Your task to perform on an android device: turn notification dots off Image 0: 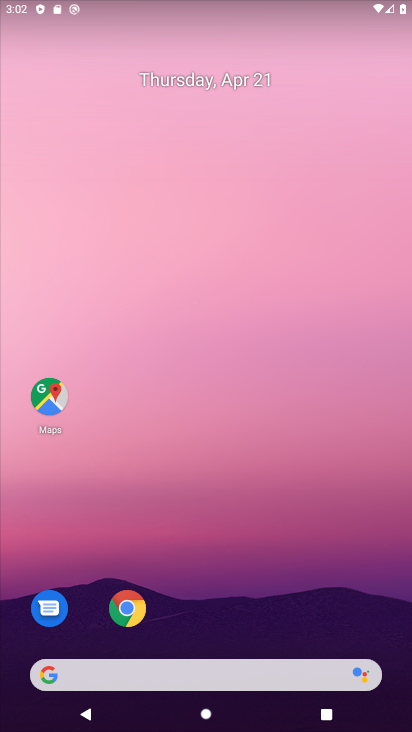
Step 0: drag from (163, 538) to (158, 231)
Your task to perform on an android device: turn notification dots off Image 1: 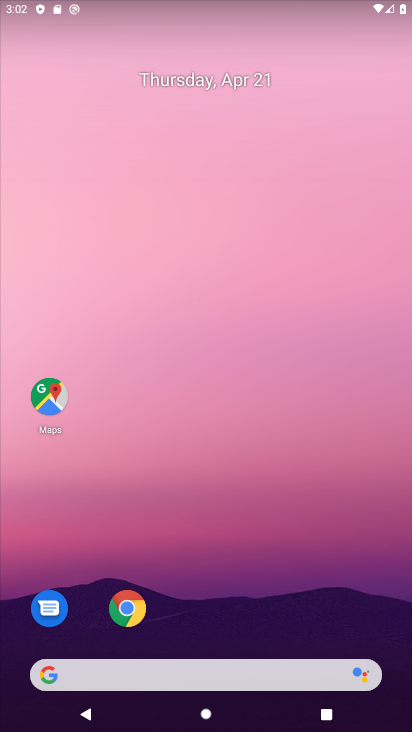
Step 1: drag from (232, 600) to (296, 2)
Your task to perform on an android device: turn notification dots off Image 2: 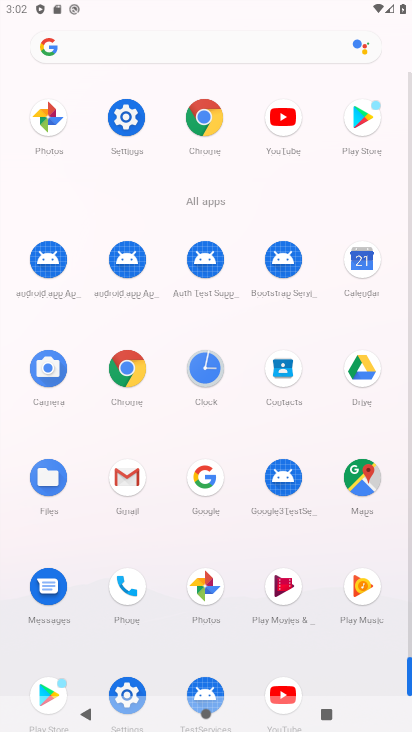
Step 2: click (118, 120)
Your task to perform on an android device: turn notification dots off Image 3: 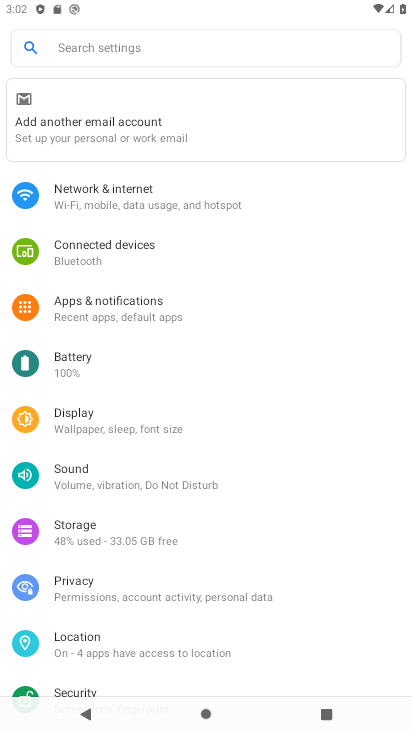
Step 3: click (111, 324)
Your task to perform on an android device: turn notification dots off Image 4: 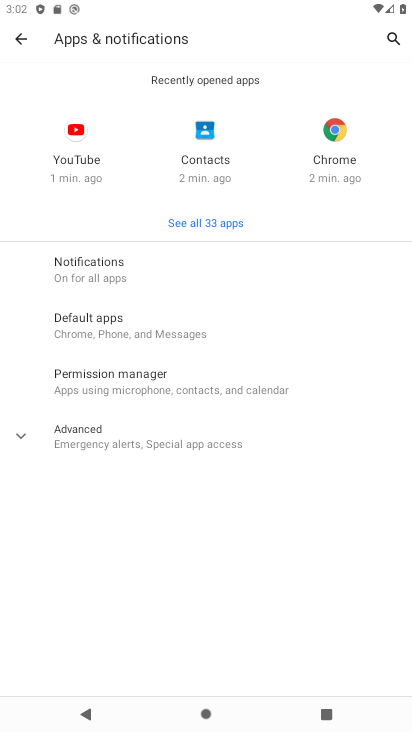
Step 4: click (90, 275)
Your task to perform on an android device: turn notification dots off Image 5: 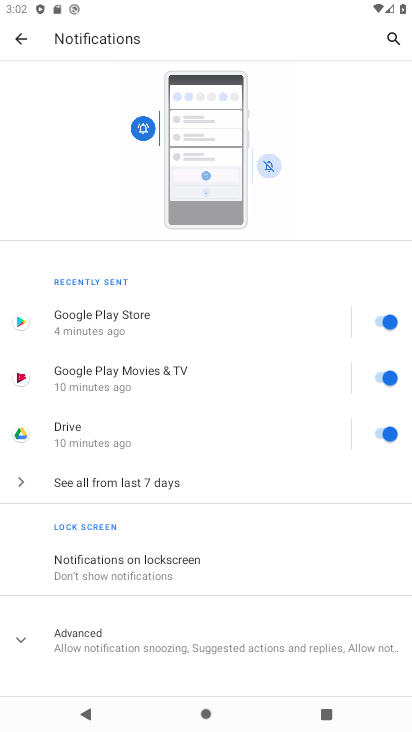
Step 5: click (104, 644)
Your task to perform on an android device: turn notification dots off Image 6: 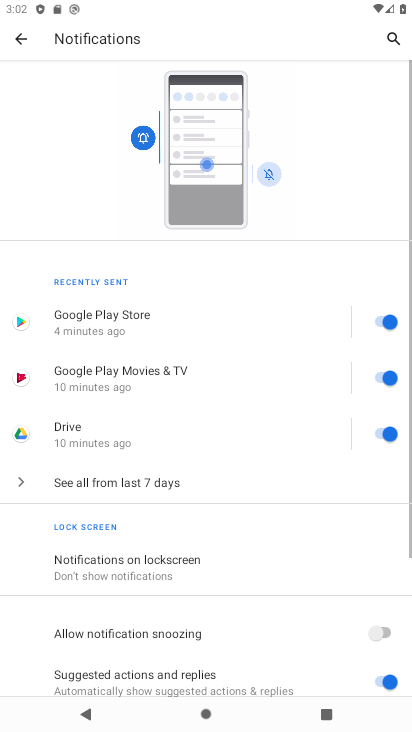
Step 6: drag from (183, 619) to (190, 337)
Your task to perform on an android device: turn notification dots off Image 7: 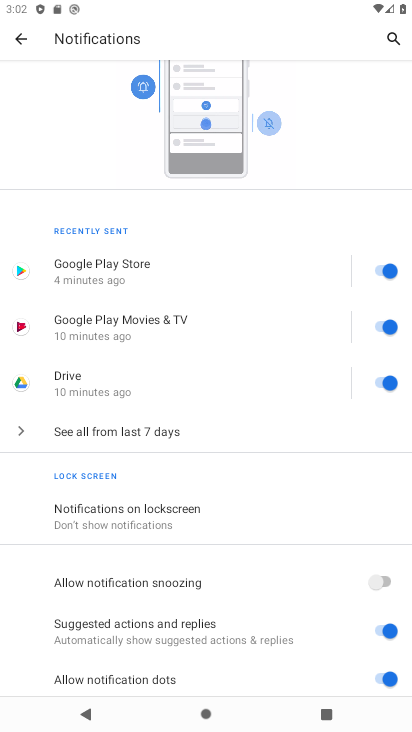
Step 7: drag from (182, 664) to (265, 362)
Your task to perform on an android device: turn notification dots off Image 8: 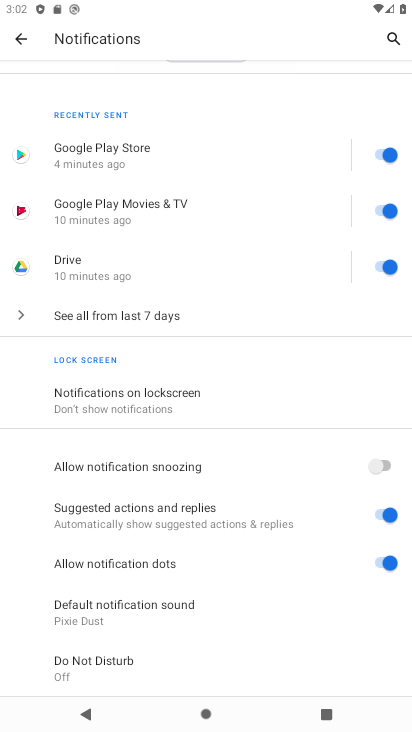
Step 8: click (380, 569)
Your task to perform on an android device: turn notification dots off Image 9: 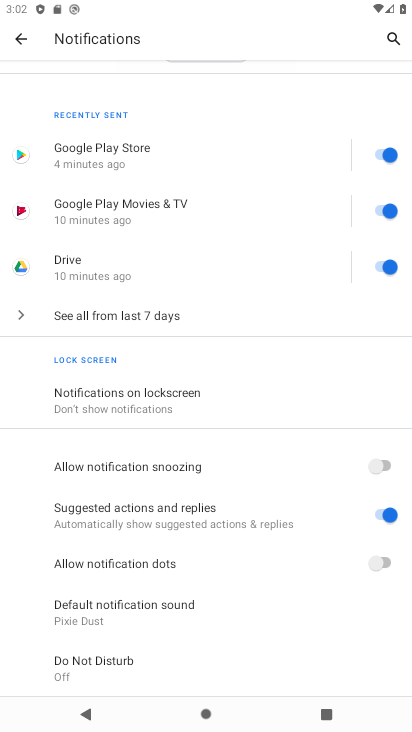
Step 9: task complete